Your task to perform on an android device: Open calendar and show me the fourth week of next month Image 0: 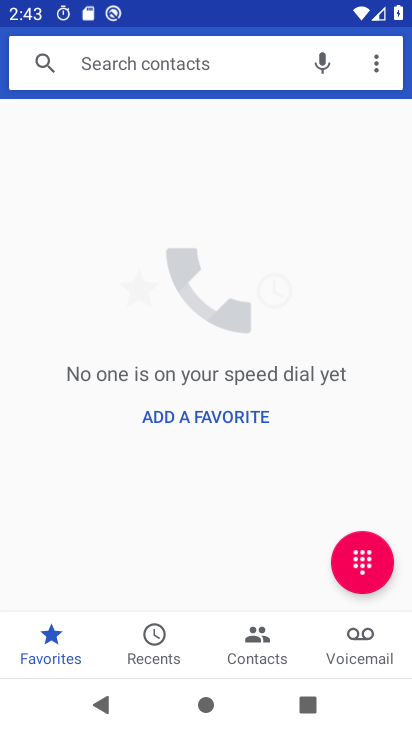
Step 0: press home button
Your task to perform on an android device: Open calendar and show me the fourth week of next month Image 1: 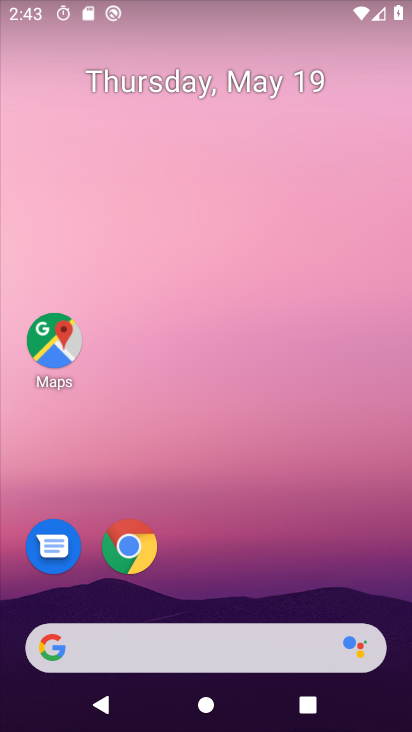
Step 1: drag from (221, 586) to (227, 77)
Your task to perform on an android device: Open calendar and show me the fourth week of next month Image 2: 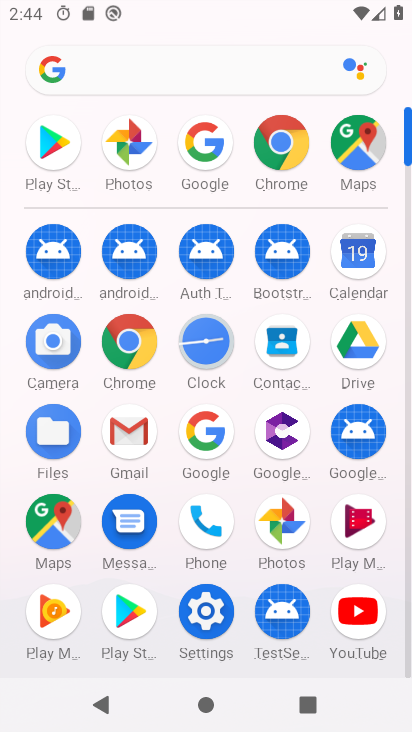
Step 2: click (357, 248)
Your task to perform on an android device: Open calendar and show me the fourth week of next month Image 3: 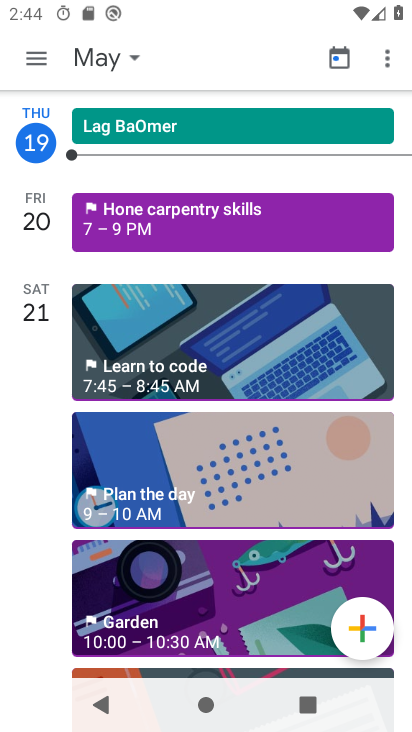
Step 3: click (134, 56)
Your task to perform on an android device: Open calendar and show me the fourth week of next month Image 4: 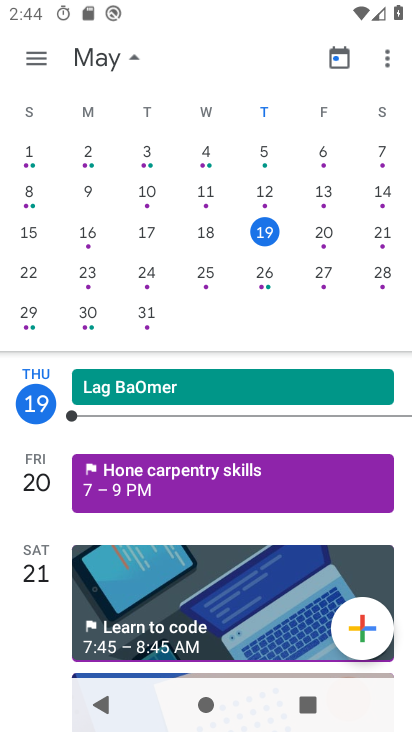
Step 4: drag from (370, 194) to (21, 157)
Your task to perform on an android device: Open calendar and show me the fourth week of next month Image 5: 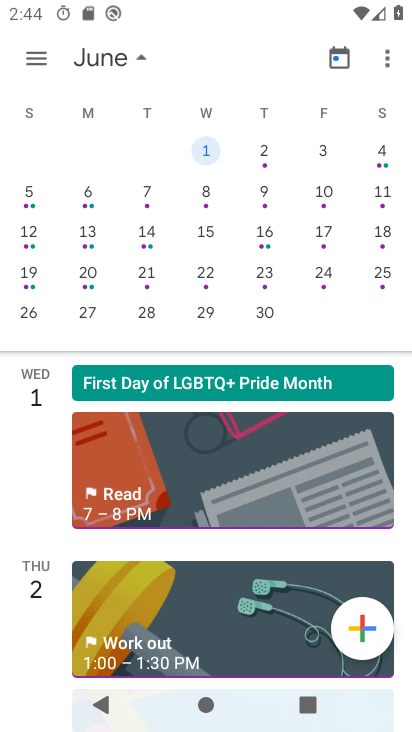
Step 5: click (26, 278)
Your task to perform on an android device: Open calendar and show me the fourth week of next month Image 6: 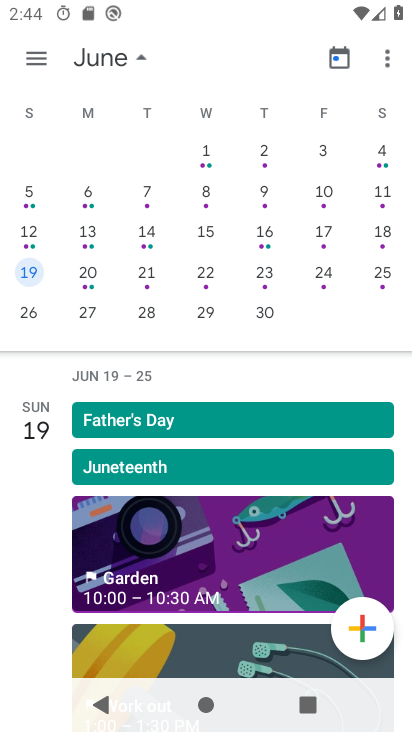
Step 6: click (139, 51)
Your task to perform on an android device: Open calendar and show me the fourth week of next month Image 7: 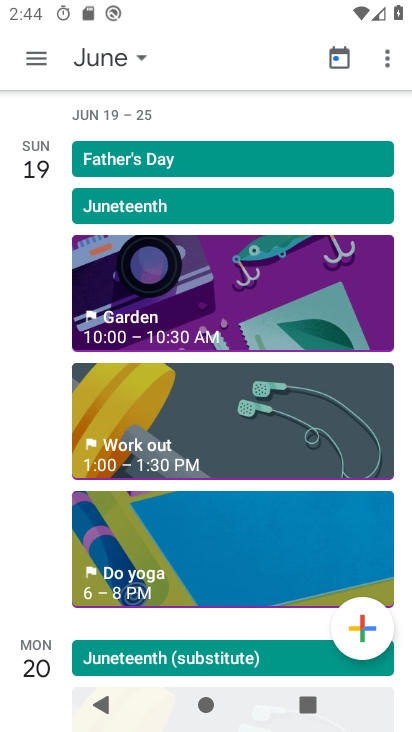
Step 7: task complete